Your task to perform on an android device: turn notification dots off Image 0: 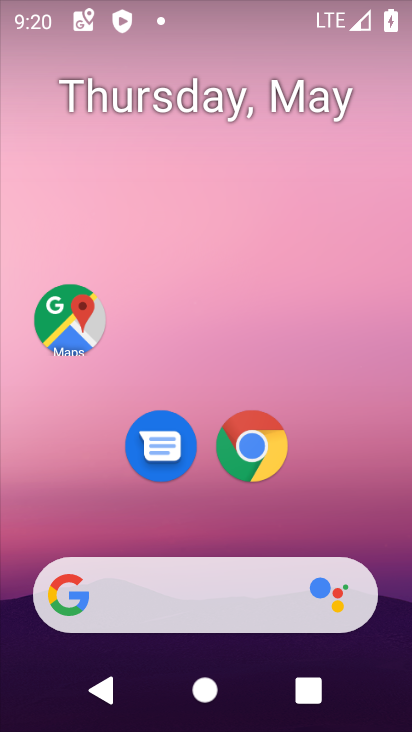
Step 0: drag from (385, 551) to (323, 26)
Your task to perform on an android device: turn notification dots off Image 1: 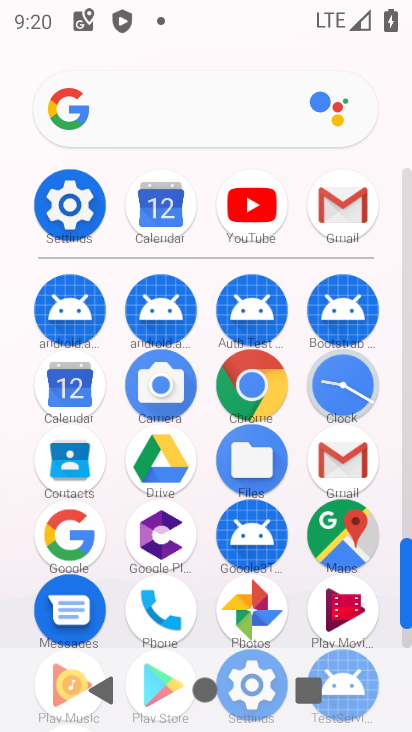
Step 1: click (405, 639)
Your task to perform on an android device: turn notification dots off Image 2: 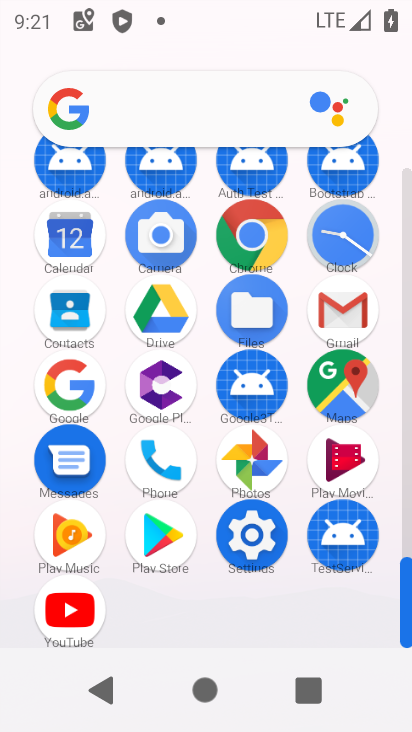
Step 2: click (257, 538)
Your task to perform on an android device: turn notification dots off Image 3: 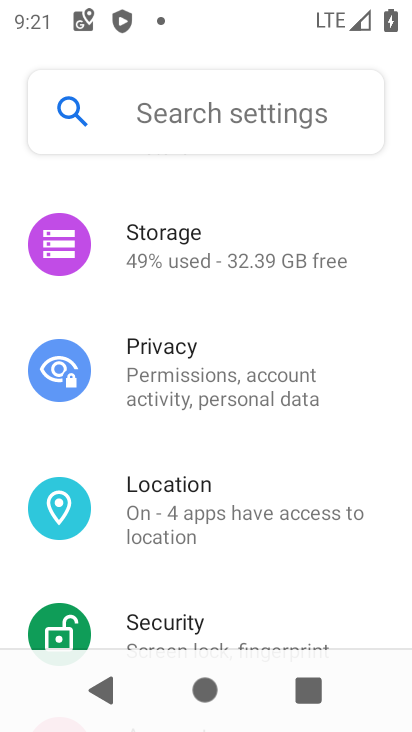
Step 3: drag from (336, 202) to (309, 542)
Your task to perform on an android device: turn notification dots off Image 4: 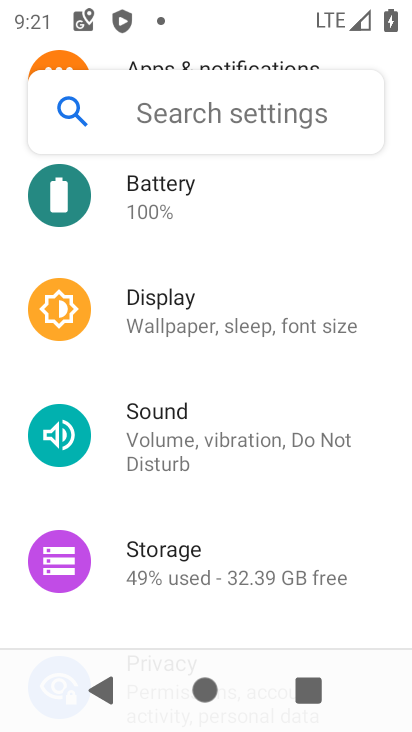
Step 4: drag from (310, 238) to (328, 515)
Your task to perform on an android device: turn notification dots off Image 5: 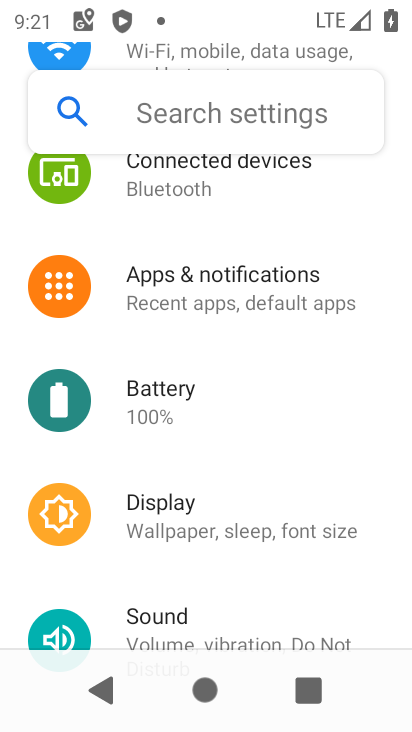
Step 5: click (187, 277)
Your task to perform on an android device: turn notification dots off Image 6: 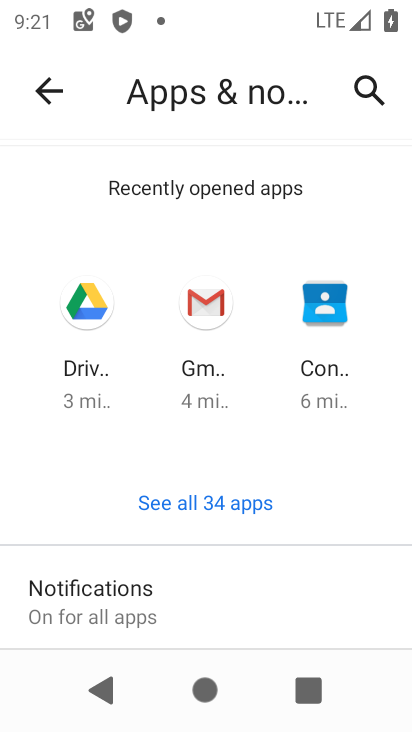
Step 6: drag from (290, 559) to (305, 54)
Your task to perform on an android device: turn notification dots off Image 7: 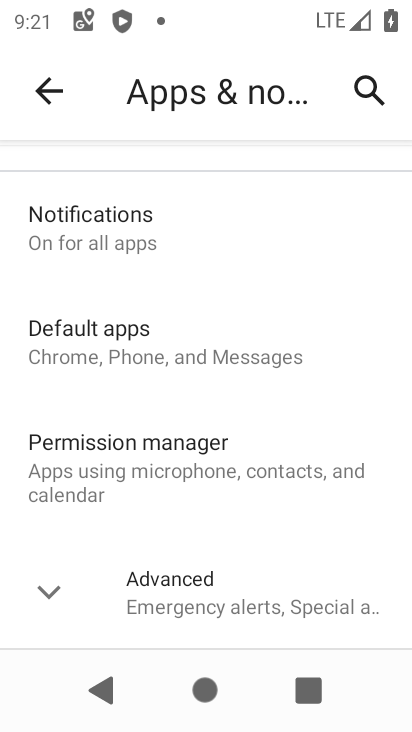
Step 7: click (88, 219)
Your task to perform on an android device: turn notification dots off Image 8: 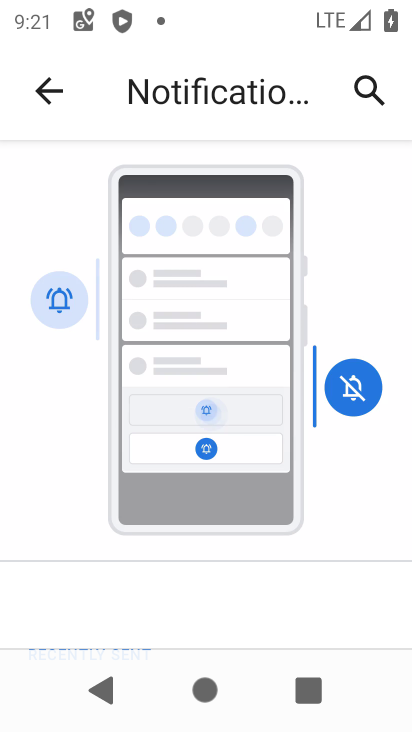
Step 8: drag from (257, 601) to (254, 149)
Your task to perform on an android device: turn notification dots off Image 9: 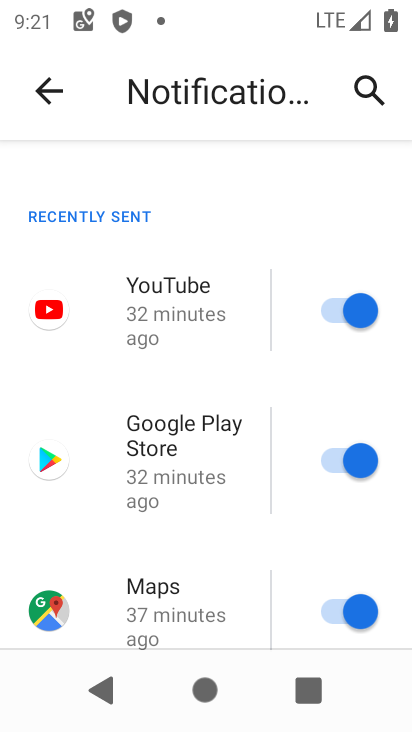
Step 9: drag from (261, 622) to (276, 176)
Your task to perform on an android device: turn notification dots off Image 10: 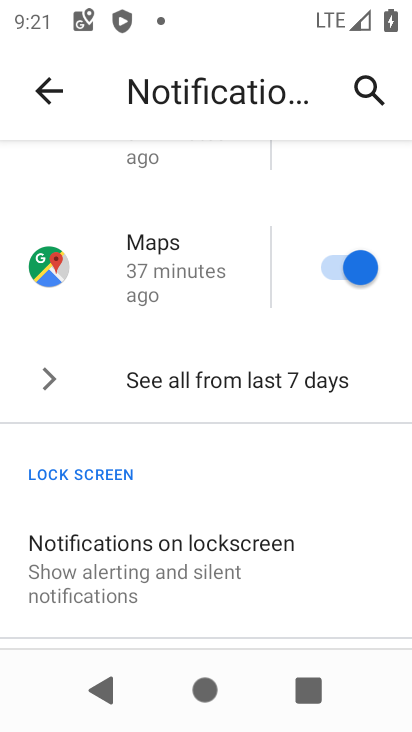
Step 10: drag from (284, 552) to (230, 110)
Your task to perform on an android device: turn notification dots off Image 11: 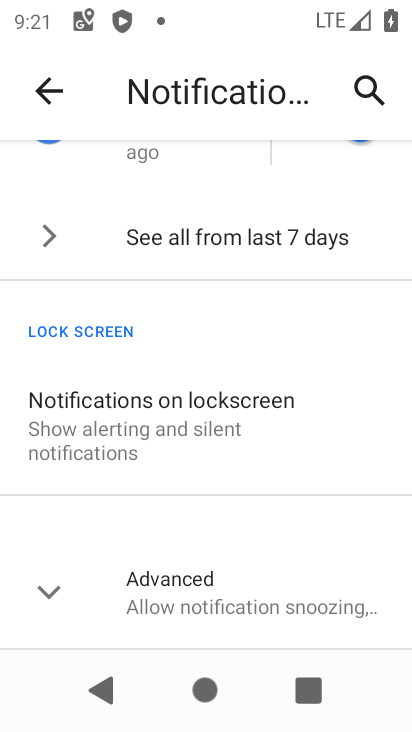
Step 11: click (41, 601)
Your task to perform on an android device: turn notification dots off Image 12: 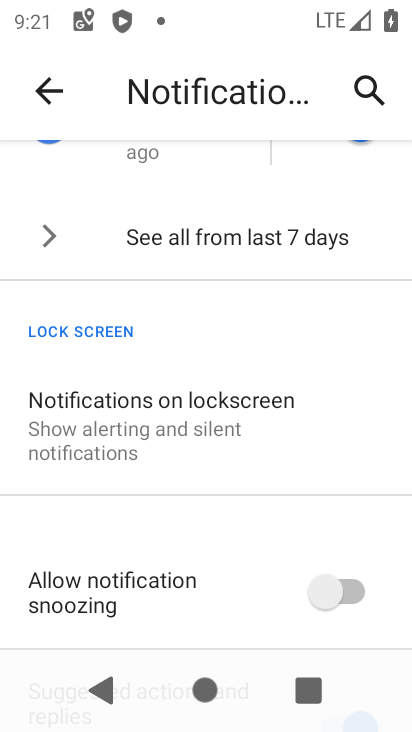
Step 12: task complete